Your task to perform on an android device: open app "Lyft - Rideshare, Bikes, Scooters & Transit" (install if not already installed), go to login, and select forgot password Image 0: 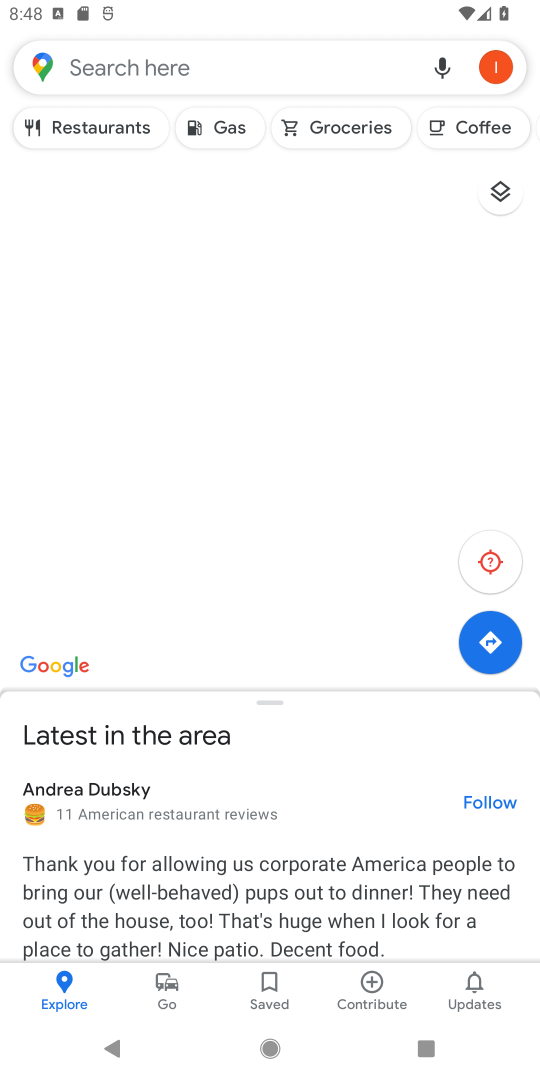
Step 0: press home button
Your task to perform on an android device: open app "Lyft - Rideshare, Bikes, Scooters & Transit" (install if not already installed), go to login, and select forgot password Image 1: 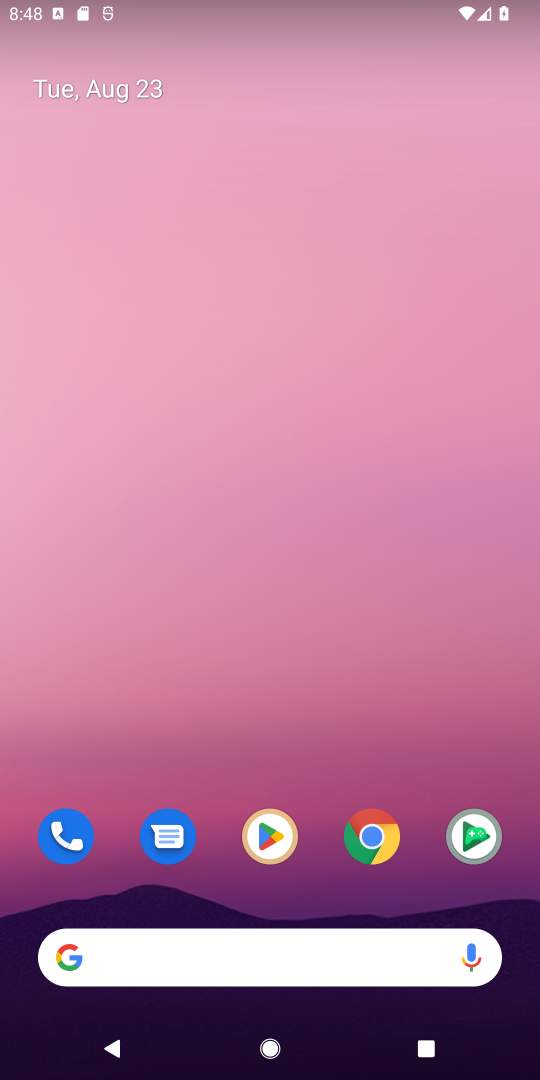
Step 1: click (268, 839)
Your task to perform on an android device: open app "Lyft - Rideshare, Bikes, Scooters & Transit" (install if not already installed), go to login, and select forgot password Image 2: 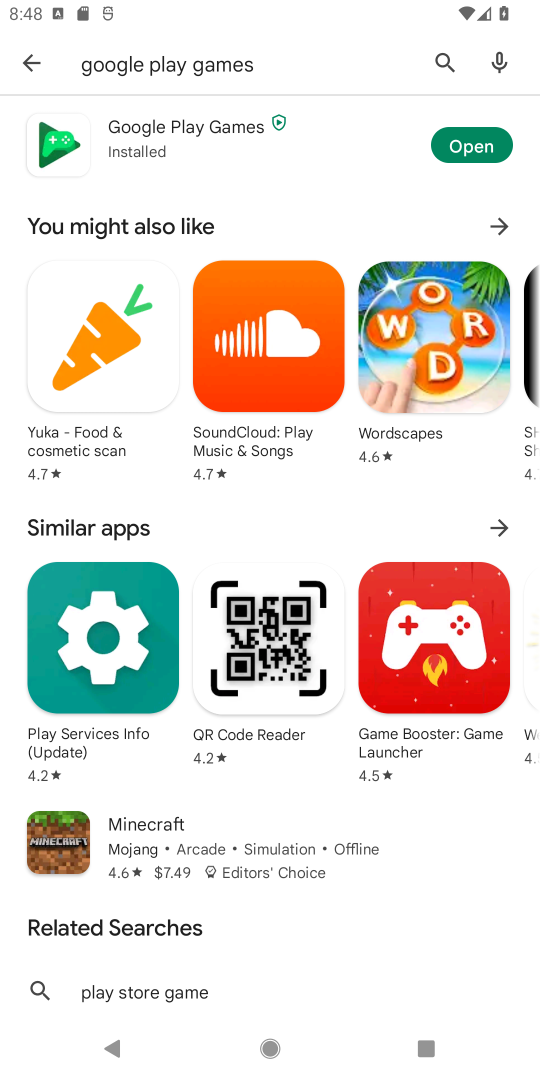
Step 2: click (438, 66)
Your task to perform on an android device: open app "Lyft - Rideshare, Bikes, Scooters & Transit" (install if not already installed), go to login, and select forgot password Image 3: 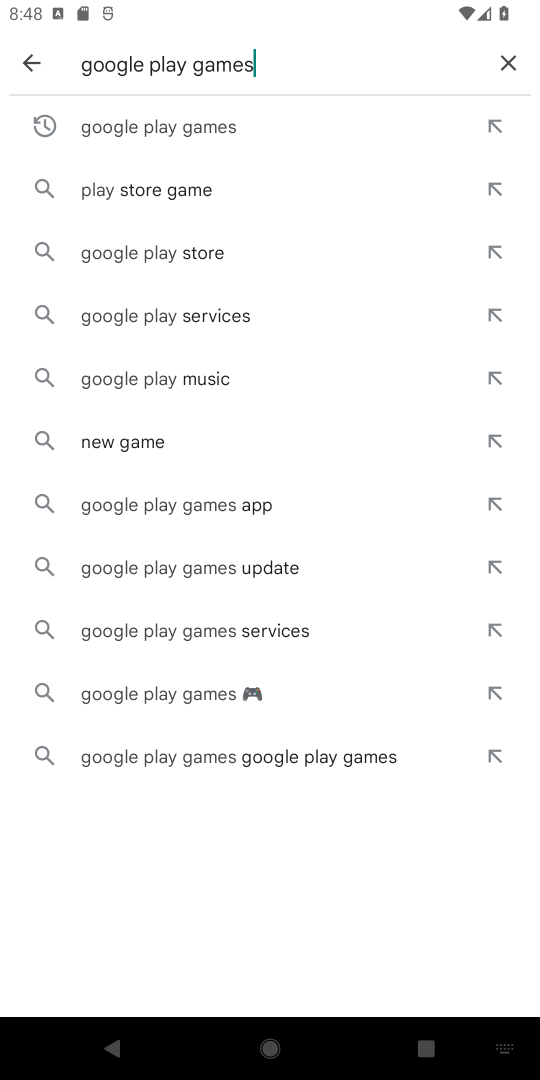
Step 3: click (501, 60)
Your task to perform on an android device: open app "Lyft - Rideshare, Bikes, Scooters & Transit" (install if not already installed), go to login, and select forgot password Image 4: 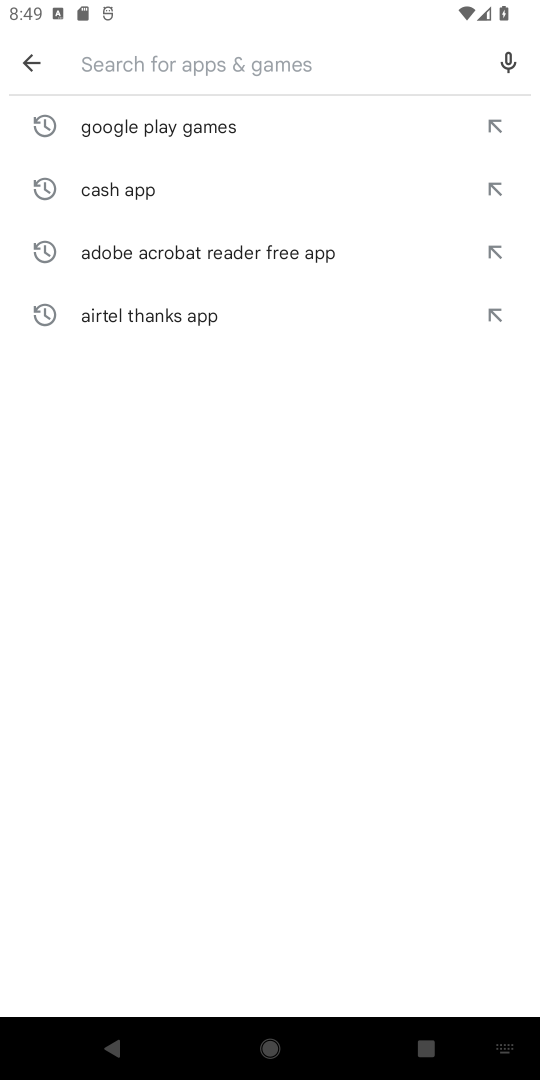
Step 4: type "Lyft - Rideshare, Bikes, Scooters & Transit"
Your task to perform on an android device: open app "Lyft - Rideshare, Bikes, Scooters & Transit" (install if not already installed), go to login, and select forgot password Image 5: 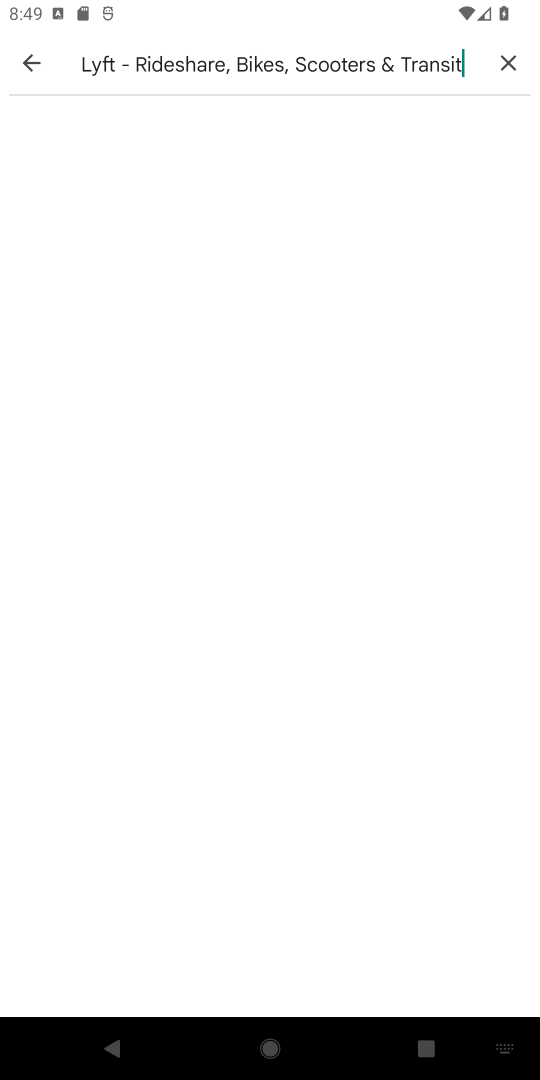
Step 5: task complete